Your task to perform on an android device: move a message to another label in the gmail app Image 0: 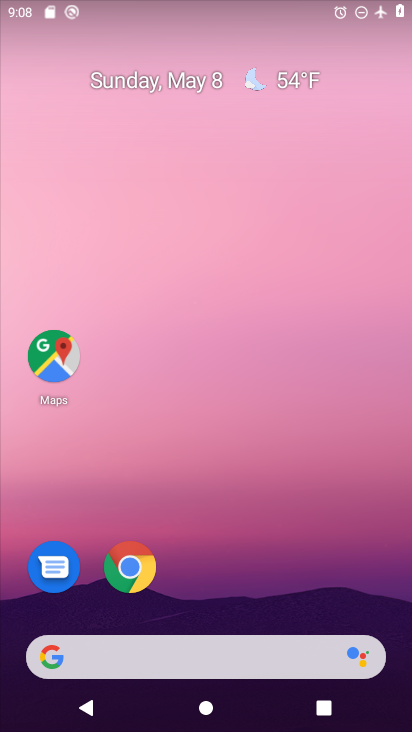
Step 0: drag from (303, 558) to (270, 99)
Your task to perform on an android device: move a message to another label in the gmail app Image 1: 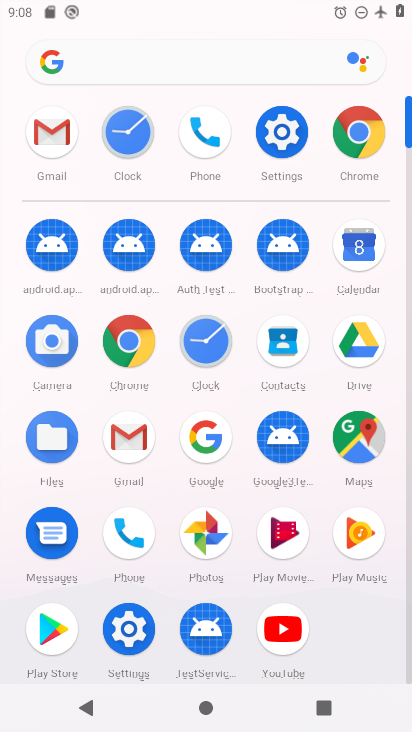
Step 1: click (125, 447)
Your task to perform on an android device: move a message to another label in the gmail app Image 2: 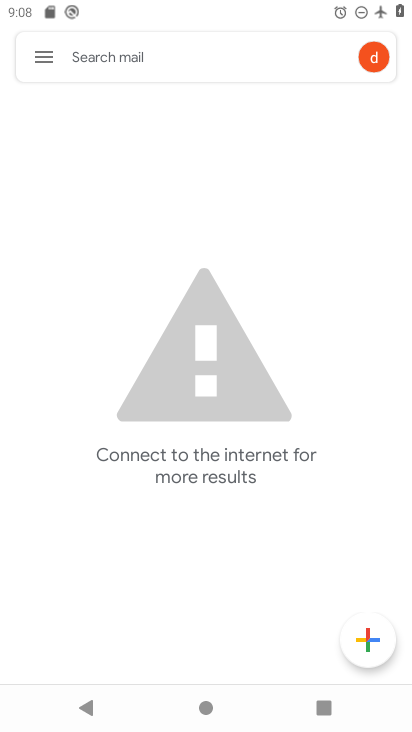
Step 2: task complete